Your task to perform on an android device: Go to sound settings Image 0: 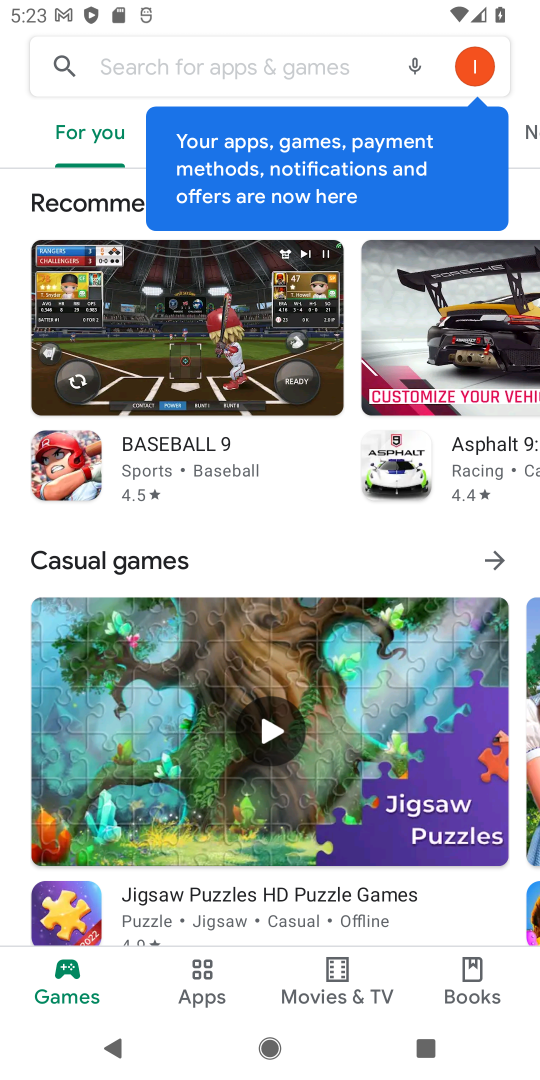
Step 0: press home button
Your task to perform on an android device: Go to sound settings Image 1: 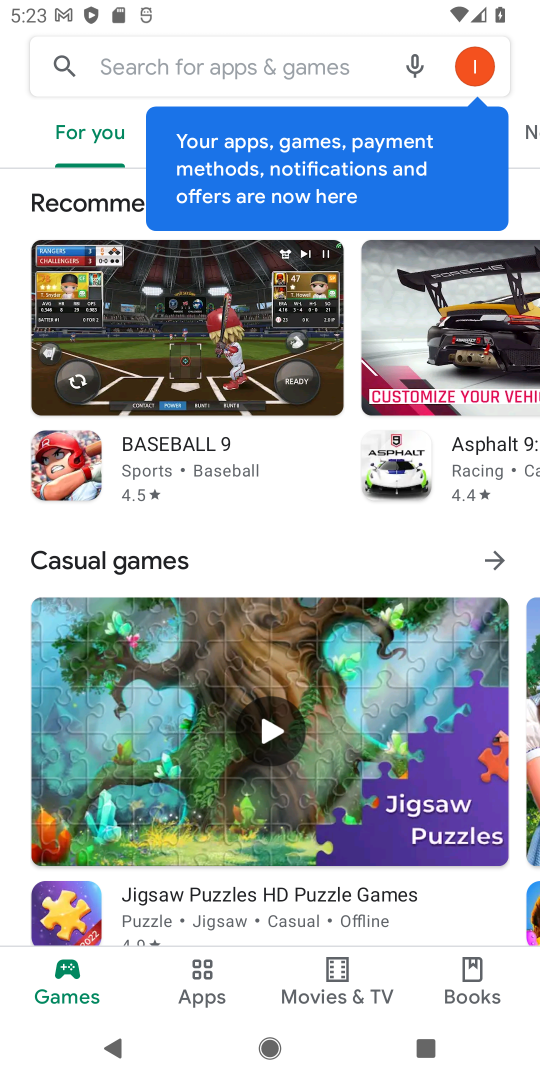
Step 1: press home button
Your task to perform on an android device: Go to sound settings Image 2: 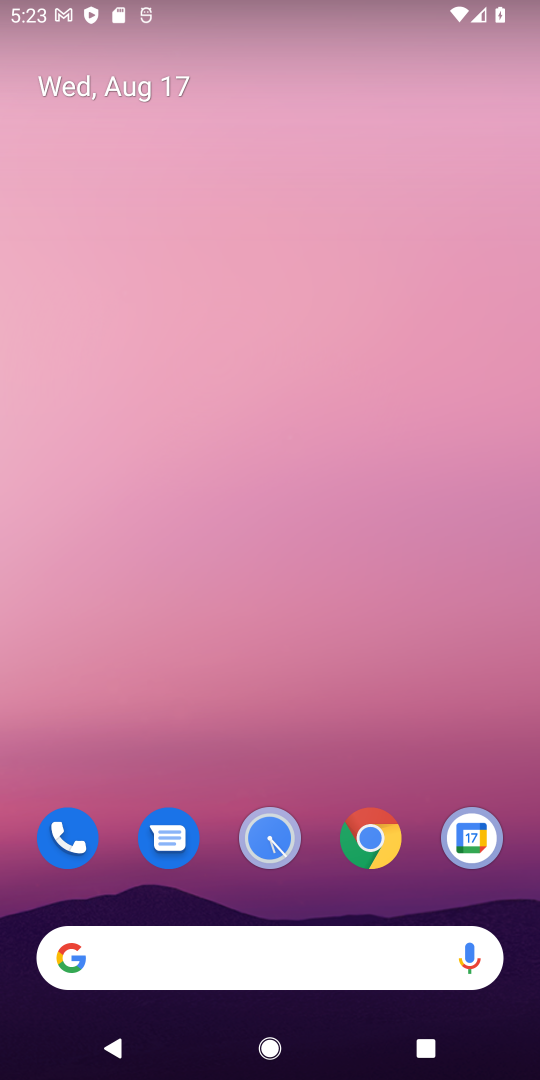
Step 2: drag from (284, 893) to (83, 146)
Your task to perform on an android device: Go to sound settings Image 3: 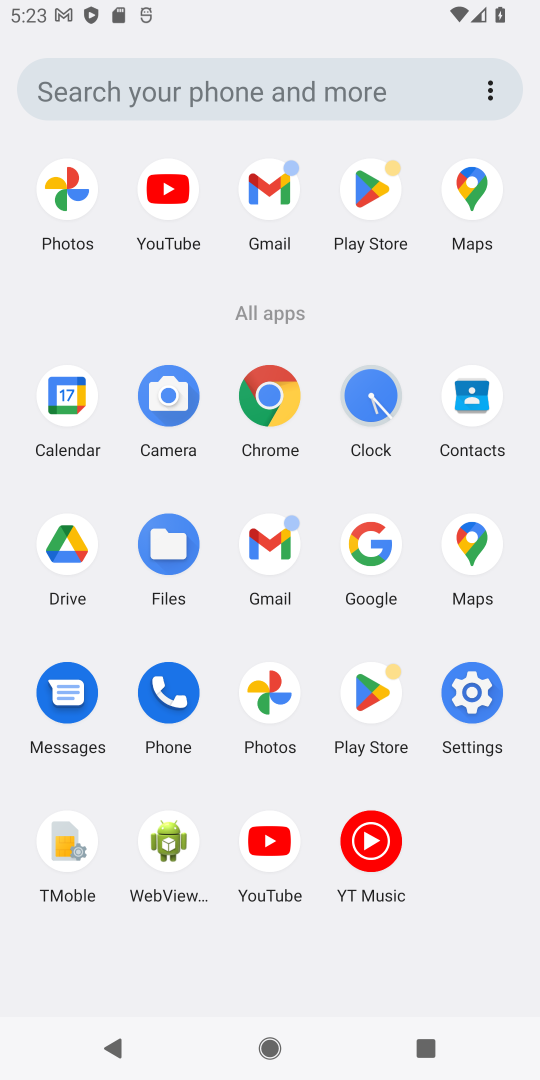
Step 3: click (464, 698)
Your task to perform on an android device: Go to sound settings Image 4: 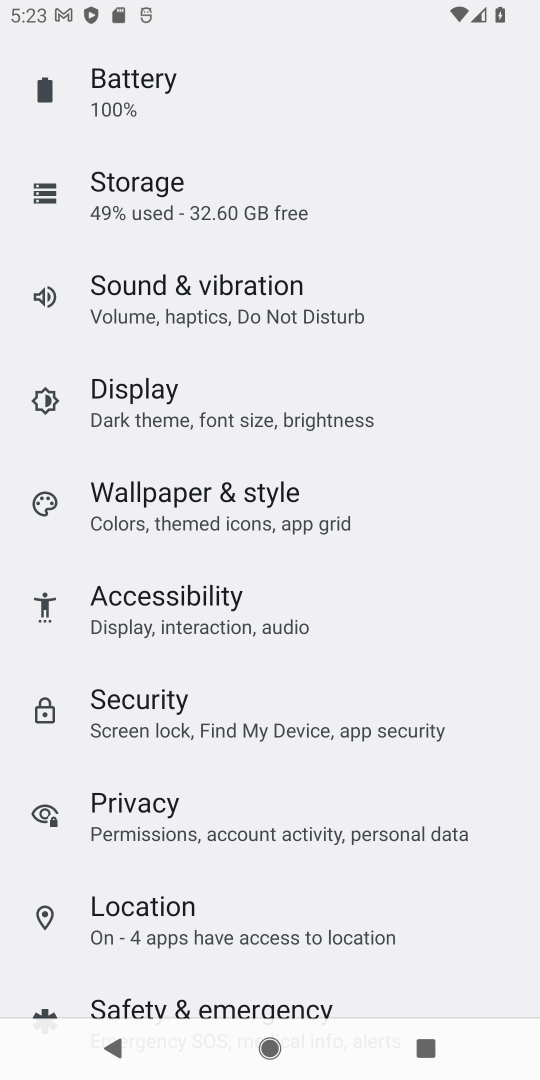
Step 4: click (253, 323)
Your task to perform on an android device: Go to sound settings Image 5: 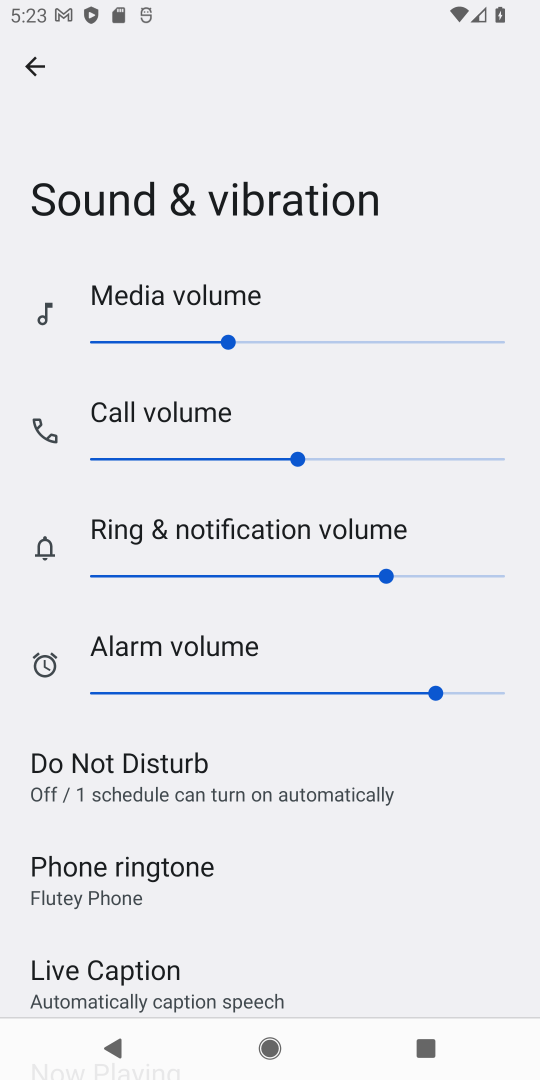
Step 5: task complete